Your task to perform on an android device: Open Google Chrome and click the shortcut for Amazon.com Image 0: 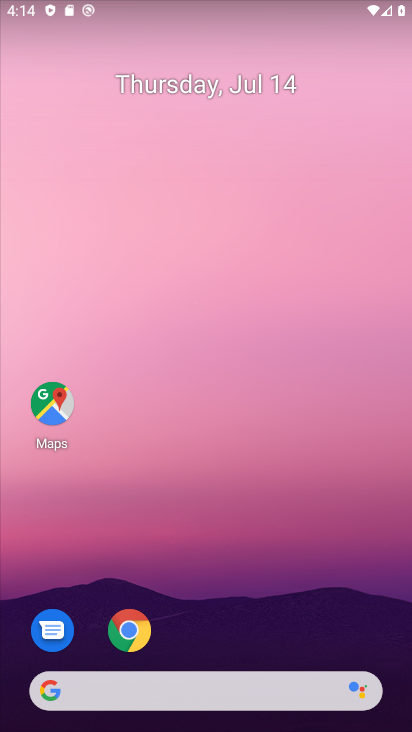
Step 0: click (135, 626)
Your task to perform on an android device: Open Google Chrome and click the shortcut for Amazon.com Image 1: 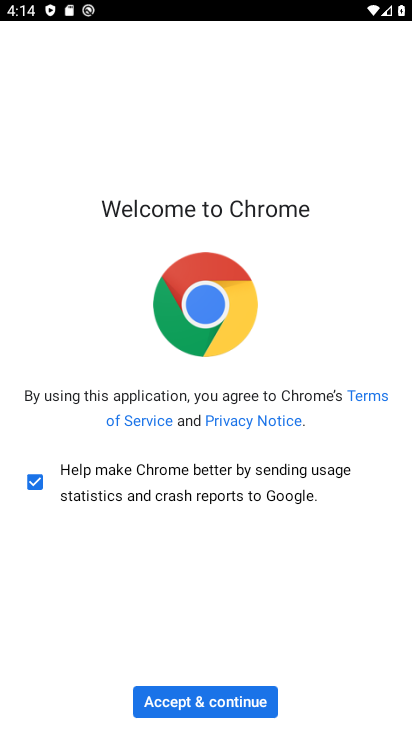
Step 1: click (189, 690)
Your task to perform on an android device: Open Google Chrome and click the shortcut for Amazon.com Image 2: 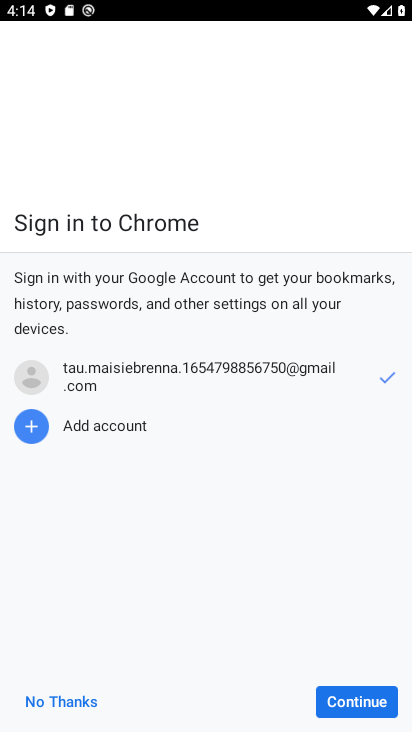
Step 2: click (379, 707)
Your task to perform on an android device: Open Google Chrome and click the shortcut for Amazon.com Image 3: 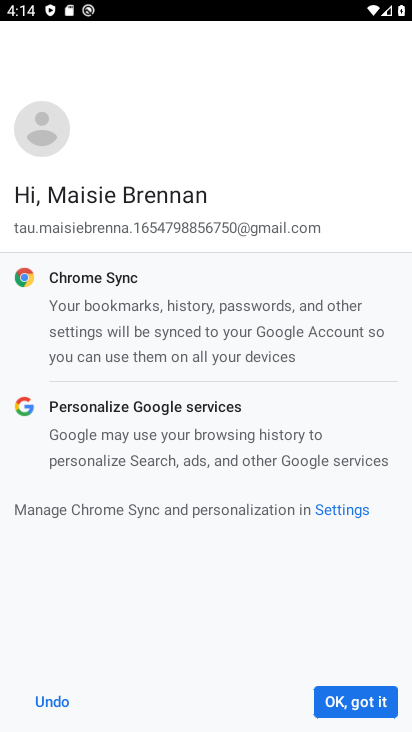
Step 3: click (379, 707)
Your task to perform on an android device: Open Google Chrome and click the shortcut for Amazon.com Image 4: 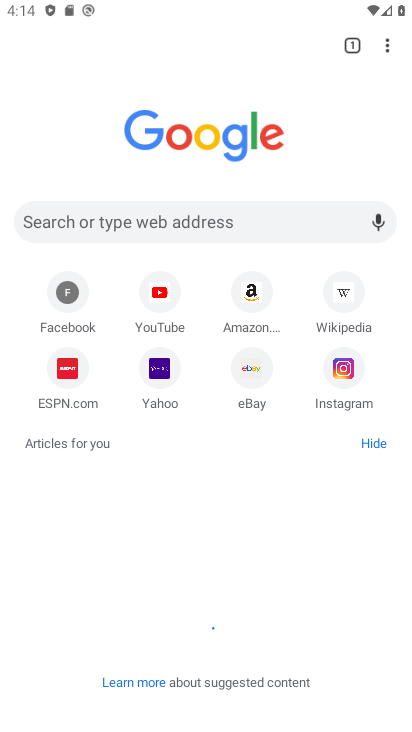
Step 4: click (253, 302)
Your task to perform on an android device: Open Google Chrome and click the shortcut for Amazon.com Image 5: 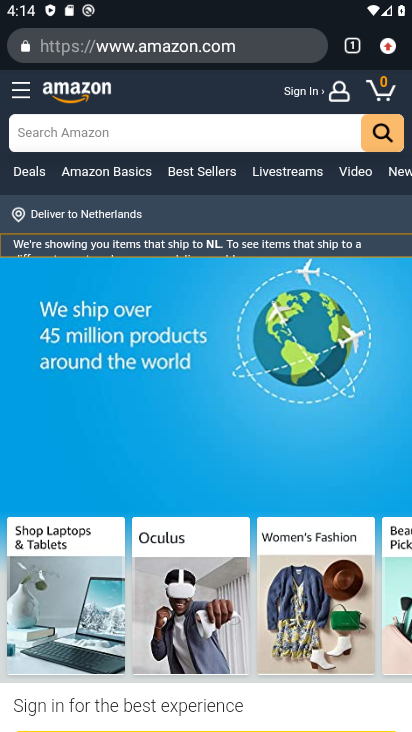
Step 5: task complete